Your task to perform on an android device: turn off notifications settings in the gmail app Image 0: 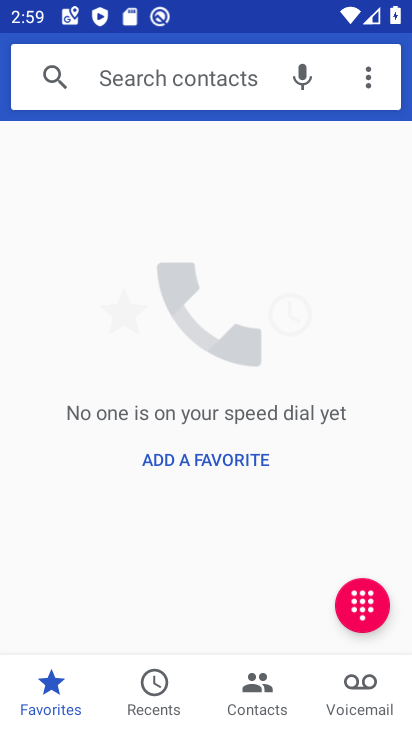
Step 0: press home button
Your task to perform on an android device: turn off notifications settings in the gmail app Image 1: 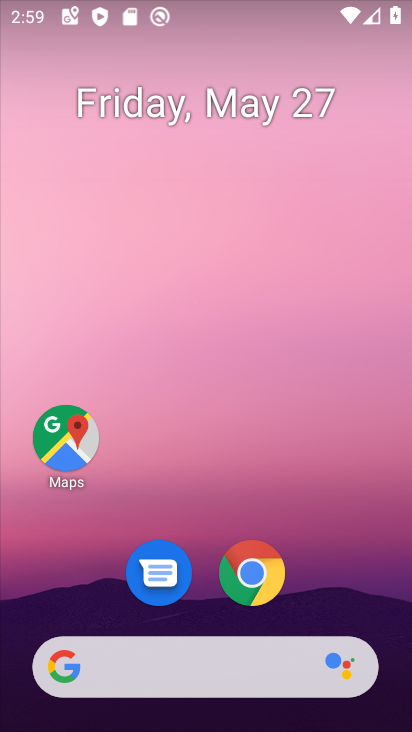
Step 1: drag from (214, 484) to (241, 25)
Your task to perform on an android device: turn off notifications settings in the gmail app Image 2: 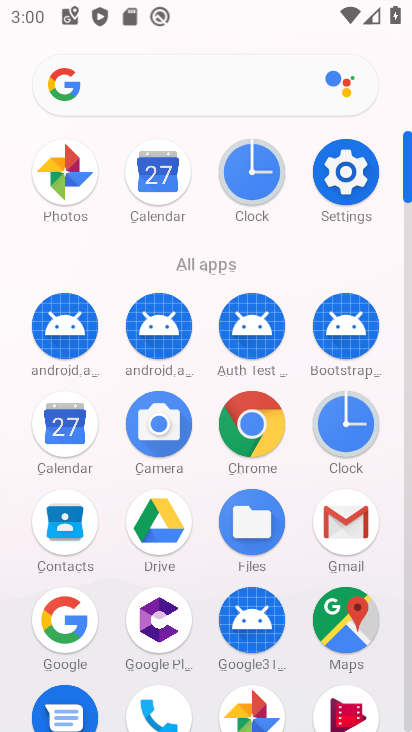
Step 2: click (340, 529)
Your task to perform on an android device: turn off notifications settings in the gmail app Image 3: 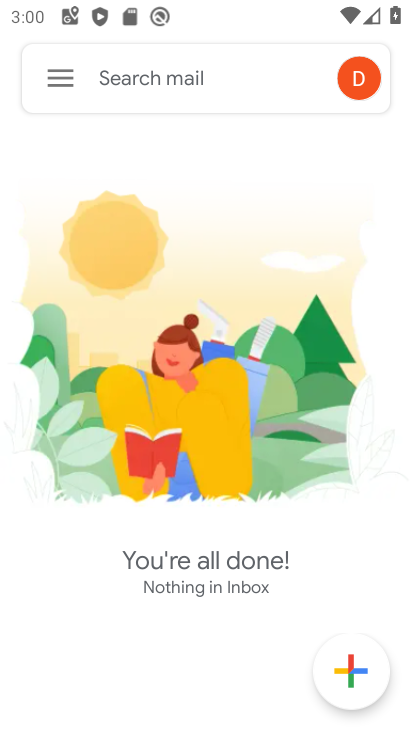
Step 3: click (57, 76)
Your task to perform on an android device: turn off notifications settings in the gmail app Image 4: 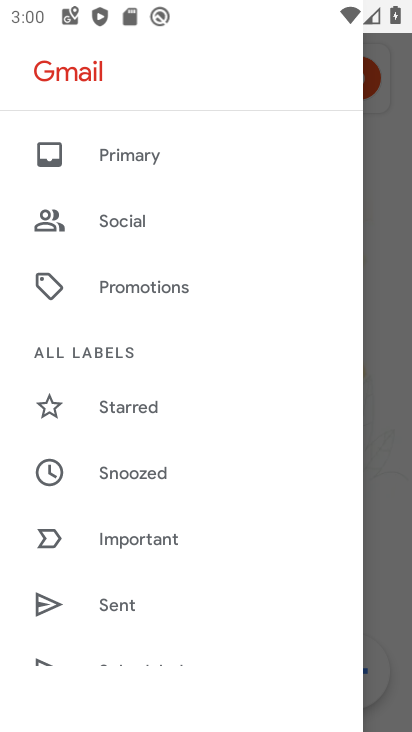
Step 4: drag from (169, 587) to (239, 31)
Your task to perform on an android device: turn off notifications settings in the gmail app Image 5: 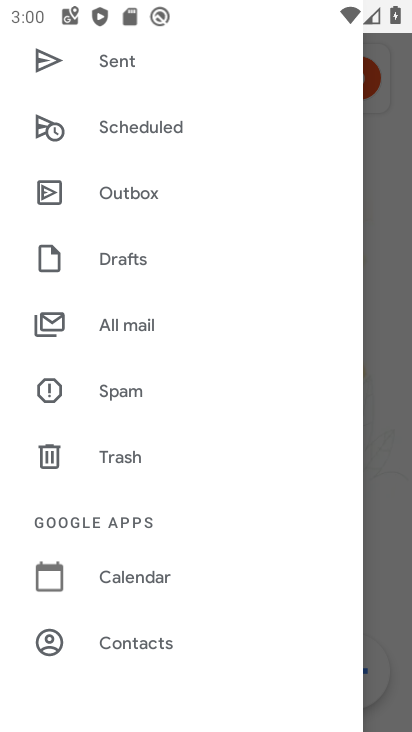
Step 5: drag from (212, 555) to (232, 233)
Your task to perform on an android device: turn off notifications settings in the gmail app Image 6: 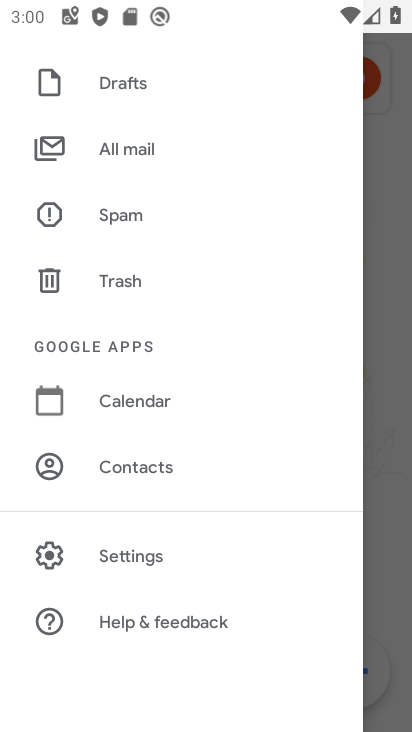
Step 6: click (149, 560)
Your task to perform on an android device: turn off notifications settings in the gmail app Image 7: 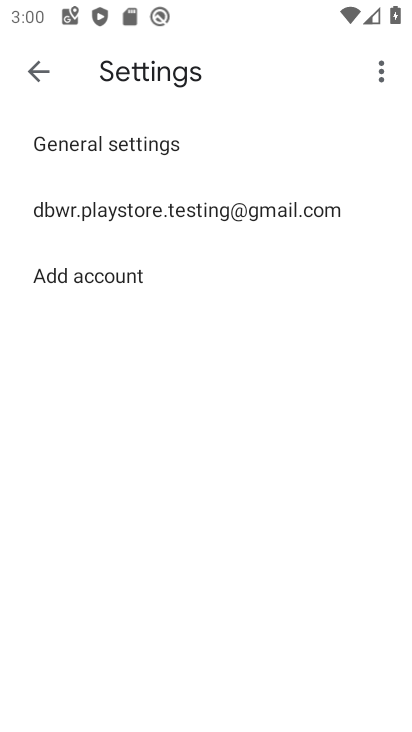
Step 7: click (255, 209)
Your task to perform on an android device: turn off notifications settings in the gmail app Image 8: 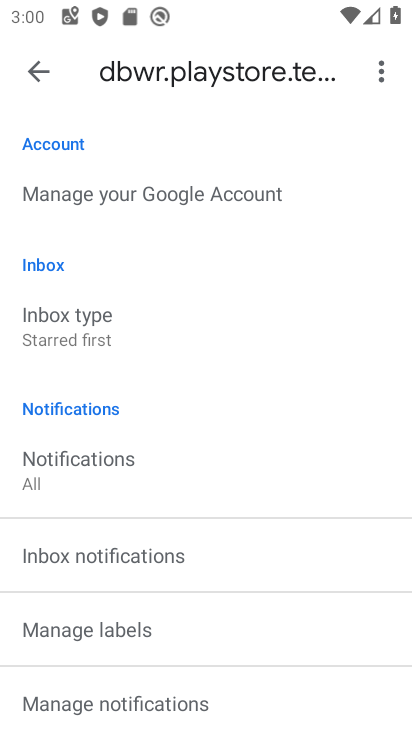
Step 8: drag from (230, 471) to (263, 135)
Your task to perform on an android device: turn off notifications settings in the gmail app Image 9: 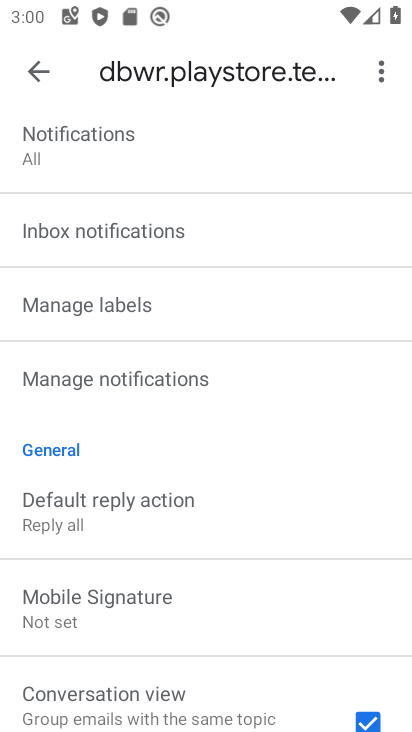
Step 9: click (233, 377)
Your task to perform on an android device: turn off notifications settings in the gmail app Image 10: 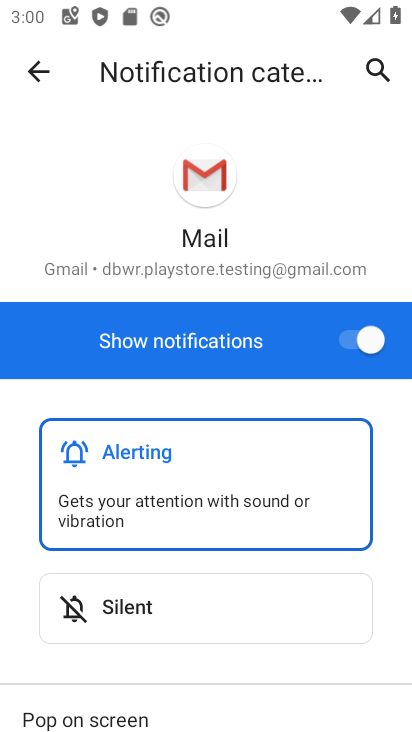
Step 10: click (346, 336)
Your task to perform on an android device: turn off notifications settings in the gmail app Image 11: 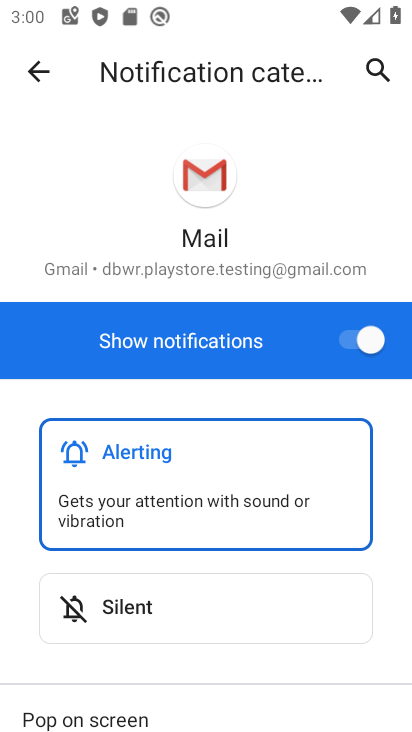
Step 11: click (366, 338)
Your task to perform on an android device: turn off notifications settings in the gmail app Image 12: 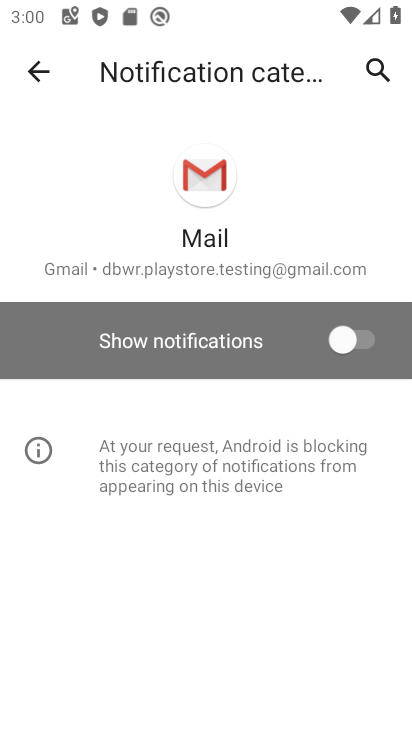
Step 12: task complete